Your task to perform on an android device: Do I have any events tomorrow? Image 0: 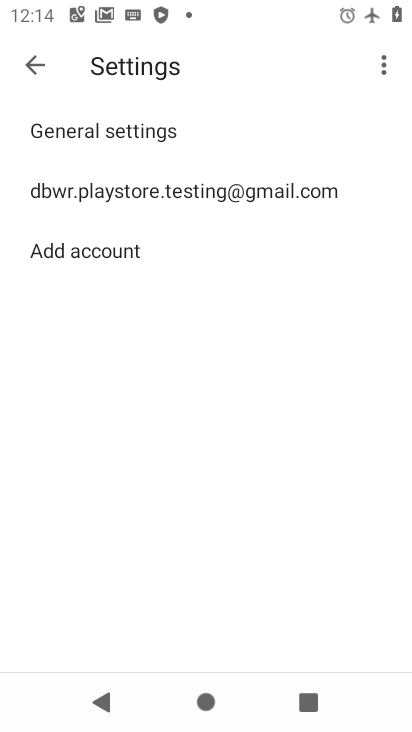
Step 0: press home button
Your task to perform on an android device: Do I have any events tomorrow? Image 1: 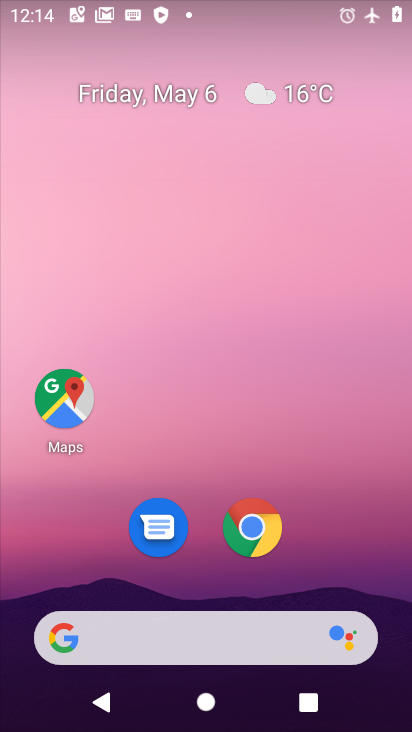
Step 1: drag from (269, 445) to (129, 178)
Your task to perform on an android device: Do I have any events tomorrow? Image 2: 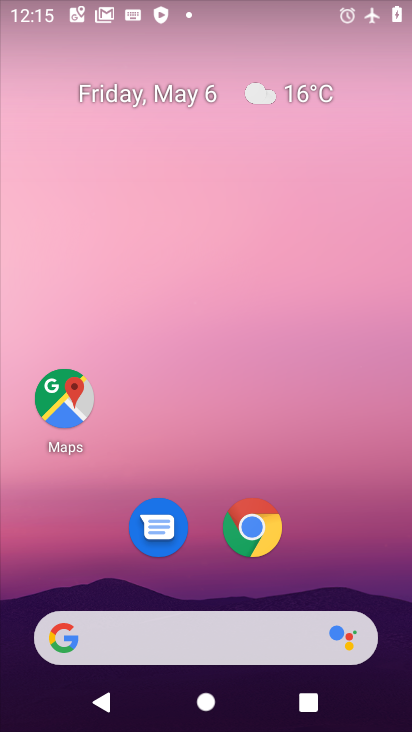
Step 2: drag from (328, 523) to (330, 86)
Your task to perform on an android device: Do I have any events tomorrow? Image 3: 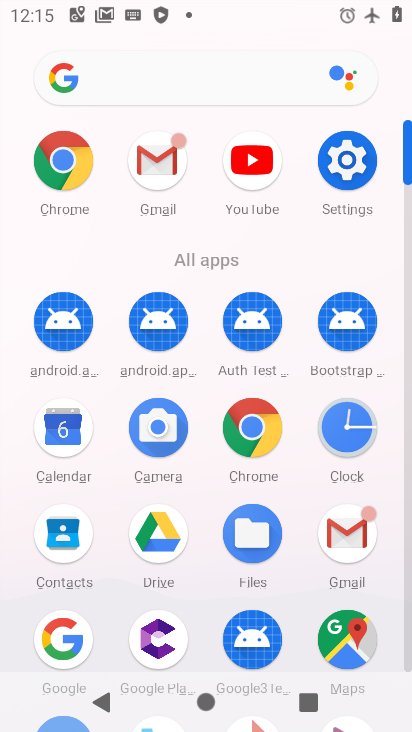
Step 3: click (56, 423)
Your task to perform on an android device: Do I have any events tomorrow? Image 4: 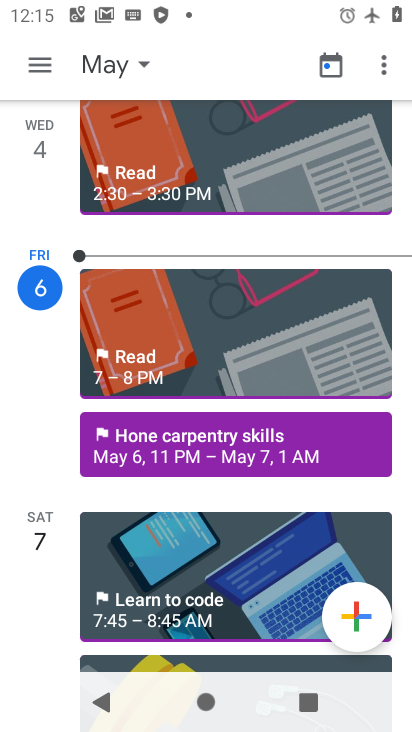
Step 4: drag from (145, 571) to (134, 372)
Your task to perform on an android device: Do I have any events tomorrow? Image 5: 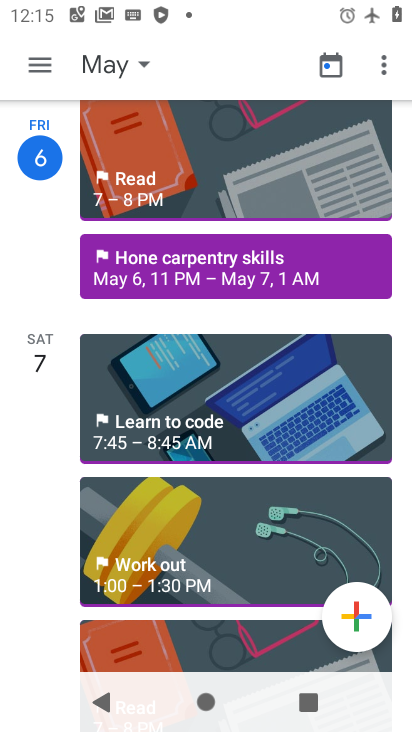
Step 5: drag from (152, 561) to (142, 394)
Your task to perform on an android device: Do I have any events tomorrow? Image 6: 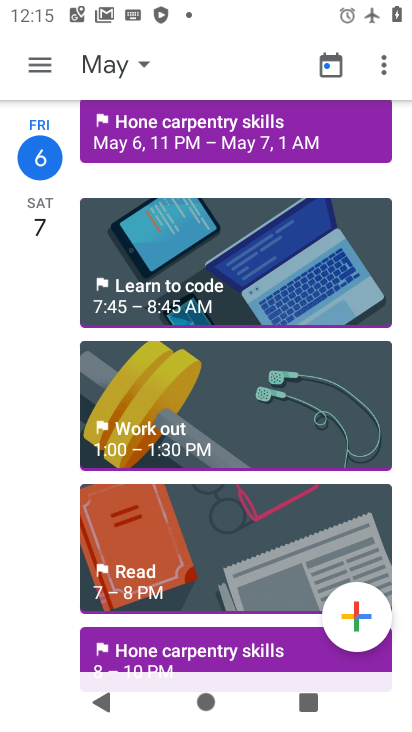
Step 6: click (144, 263)
Your task to perform on an android device: Do I have any events tomorrow? Image 7: 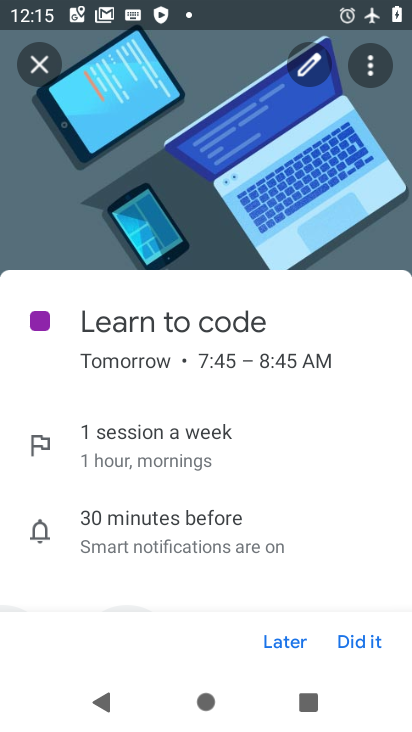
Step 7: click (27, 70)
Your task to perform on an android device: Do I have any events tomorrow? Image 8: 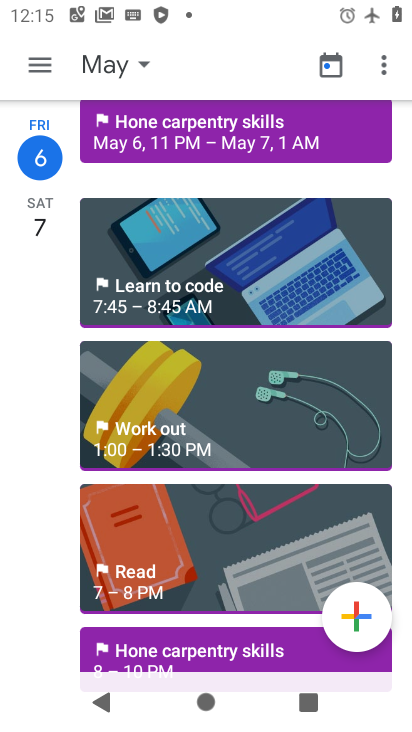
Step 8: click (147, 407)
Your task to perform on an android device: Do I have any events tomorrow? Image 9: 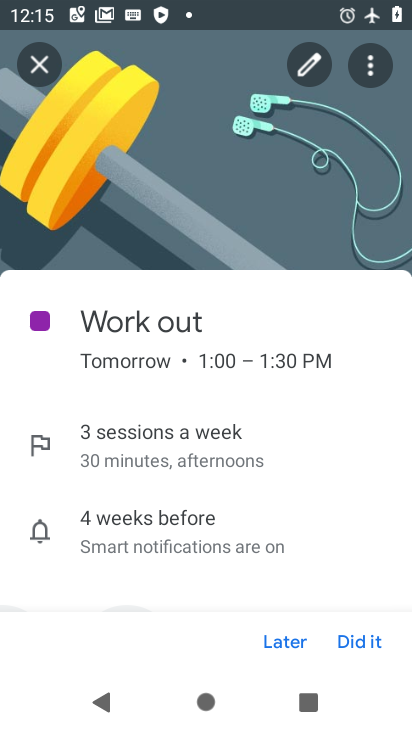
Step 9: click (39, 60)
Your task to perform on an android device: Do I have any events tomorrow? Image 10: 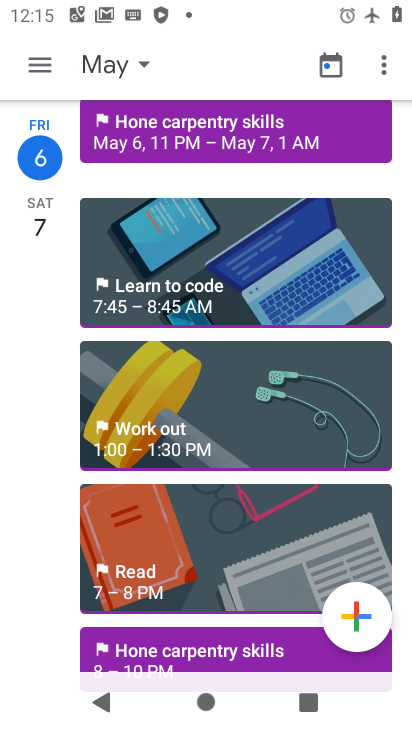
Step 10: click (165, 531)
Your task to perform on an android device: Do I have any events tomorrow? Image 11: 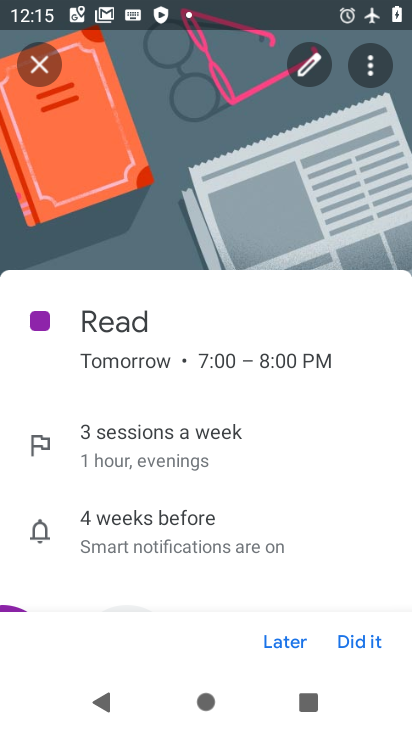
Step 11: click (34, 57)
Your task to perform on an android device: Do I have any events tomorrow? Image 12: 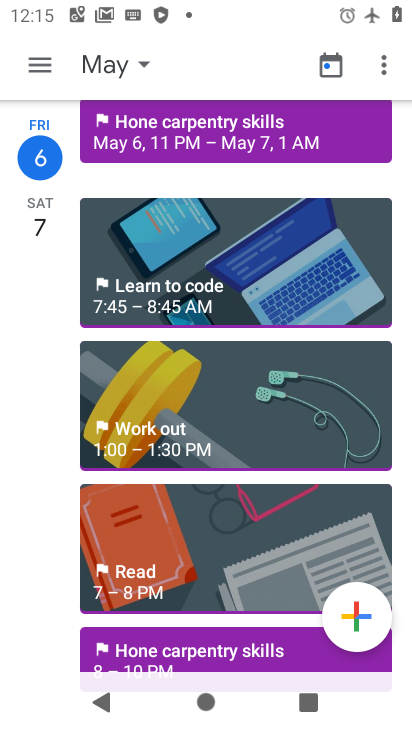
Step 12: drag from (193, 600) to (201, 380)
Your task to perform on an android device: Do I have any events tomorrow? Image 13: 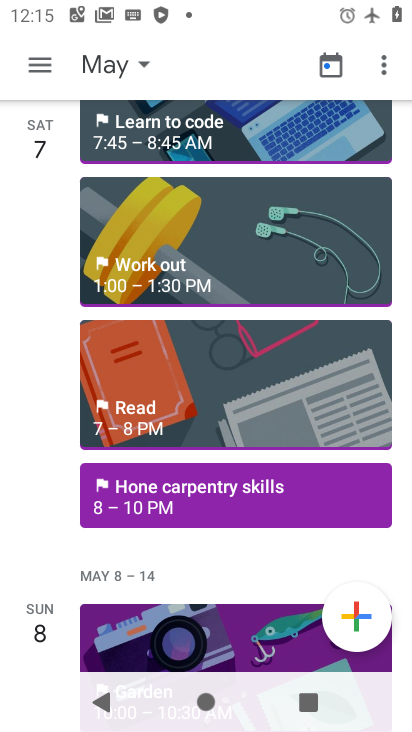
Step 13: click (153, 485)
Your task to perform on an android device: Do I have any events tomorrow? Image 14: 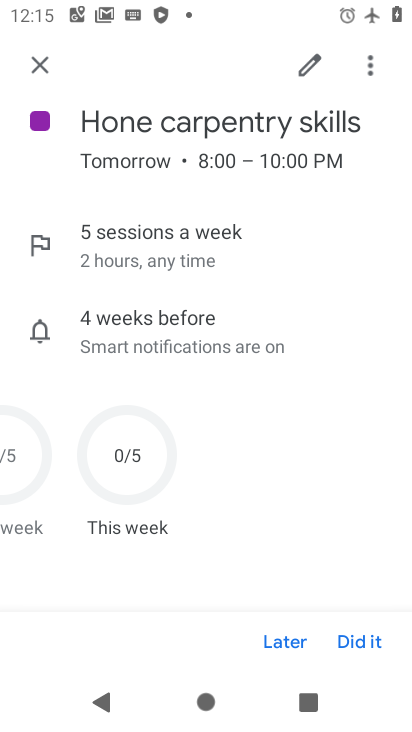
Step 14: task complete